Your task to perform on an android device: Search for amazon basics triple a on newegg, select the first entry, add it to the cart, then select checkout. Image 0: 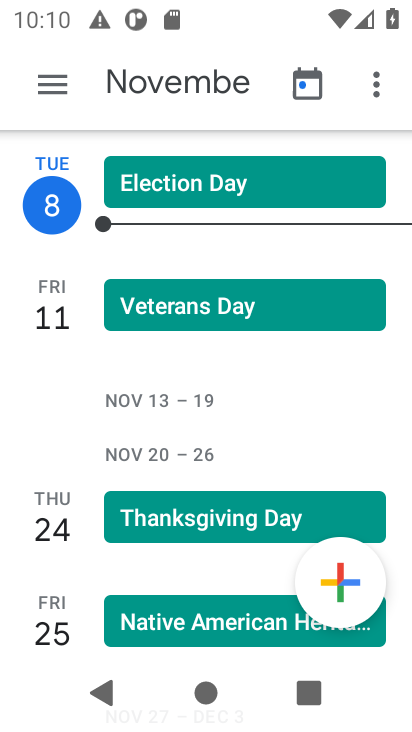
Step 0: press home button
Your task to perform on an android device: Search for amazon basics triple a on newegg, select the first entry, add it to the cart, then select checkout. Image 1: 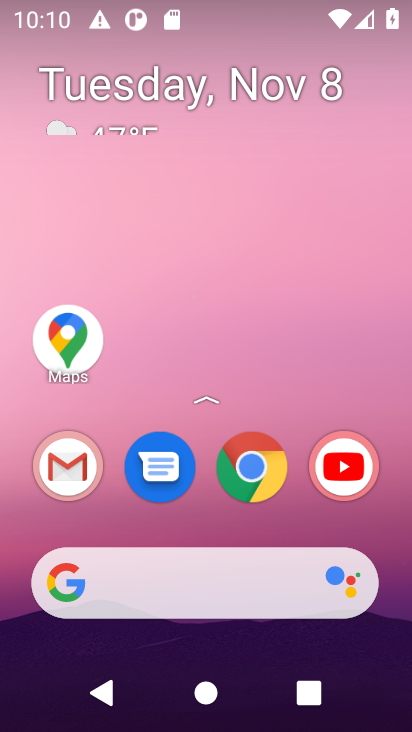
Step 1: click (175, 590)
Your task to perform on an android device: Search for amazon basics triple a on newegg, select the first entry, add it to the cart, then select checkout. Image 2: 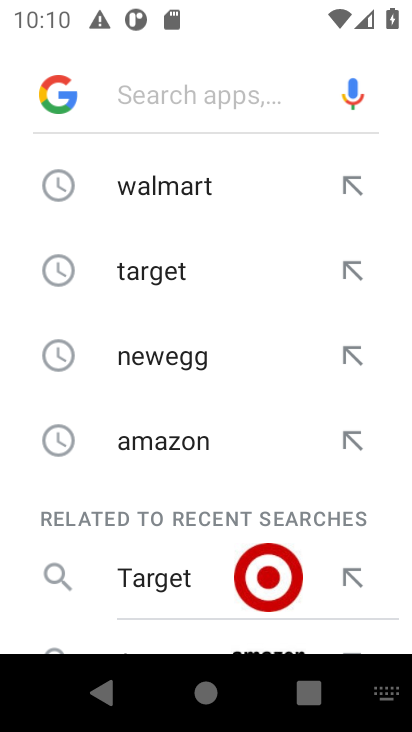
Step 2: click (253, 448)
Your task to perform on an android device: Search for amazon basics triple a on newegg, select the first entry, add it to the cart, then select checkout. Image 3: 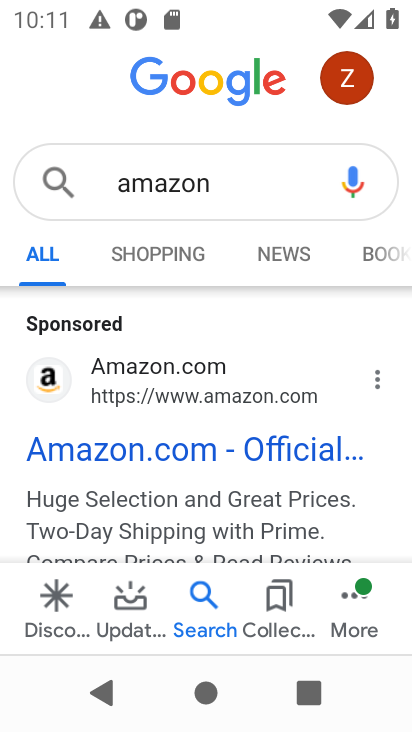
Step 3: click (149, 446)
Your task to perform on an android device: Search for amazon basics triple a on newegg, select the first entry, add it to the cart, then select checkout. Image 4: 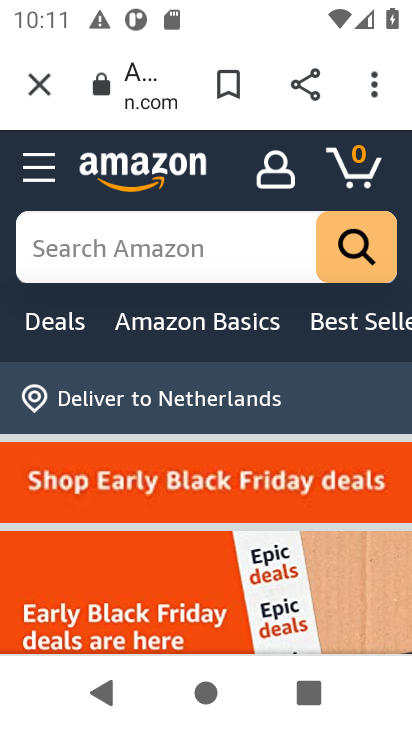
Step 4: click (196, 266)
Your task to perform on an android device: Search for amazon basics triple a on newegg, select the first entry, add it to the cart, then select checkout. Image 5: 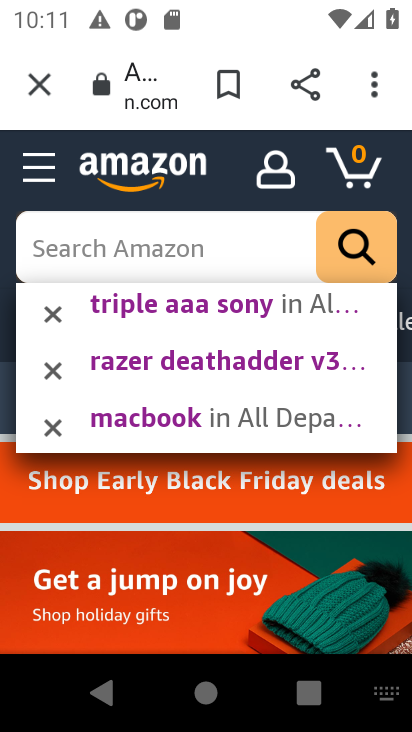
Step 5: task complete